Your task to perform on an android device: Is it going to rain tomorrow? Image 0: 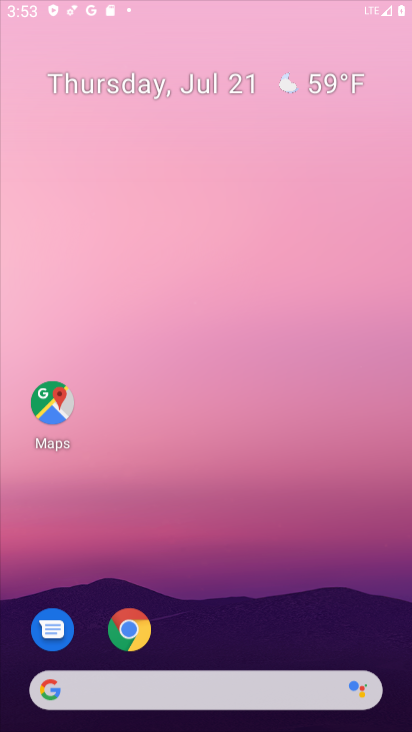
Step 0: press back button
Your task to perform on an android device: Is it going to rain tomorrow? Image 1: 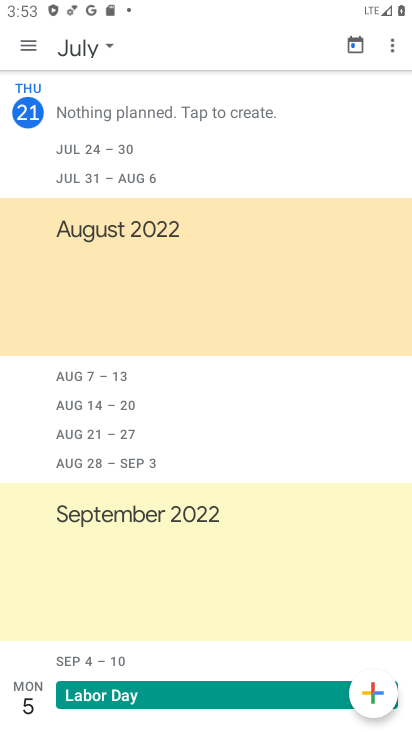
Step 1: drag from (178, 484) to (117, 76)
Your task to perform on an android device: Is it going to rain tomorrow? Image 2: 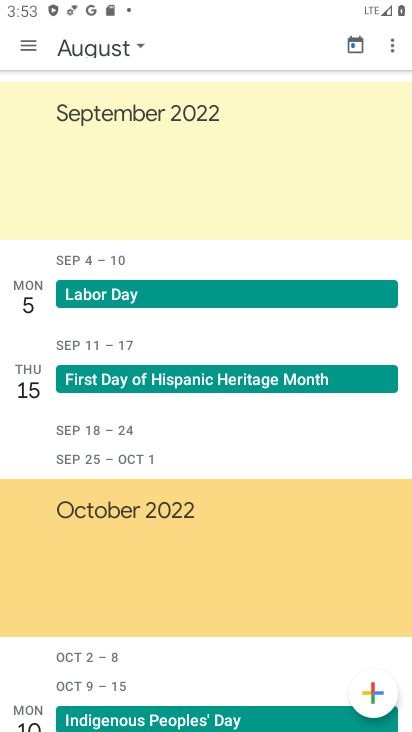
Step 2: press back button
Your task to perform on an android device: Is it going to rain tomorrow? Image 3: 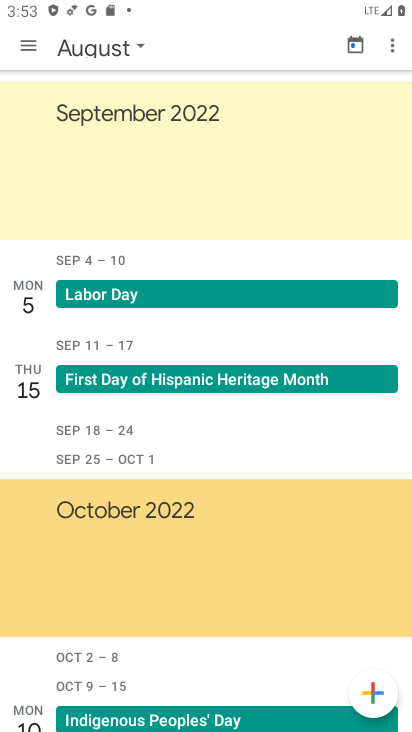
Step 3: press back button
Your task to perform on an android device: Is it going to rain tomorrow? Image 4: 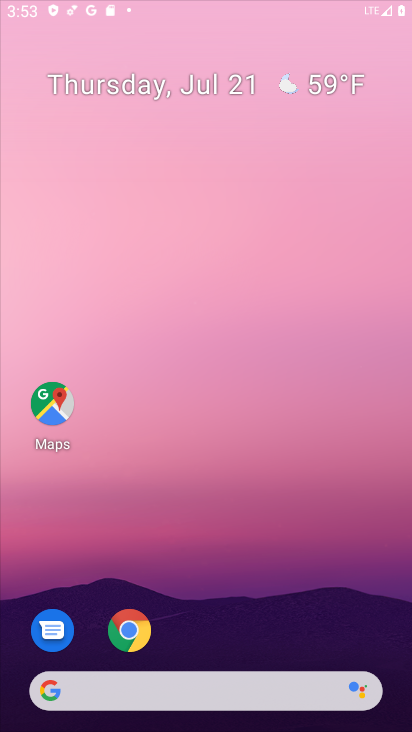
Step 4: press back button
Your task to perform on an android device: Is it going to rain tomorrow? Image 5: 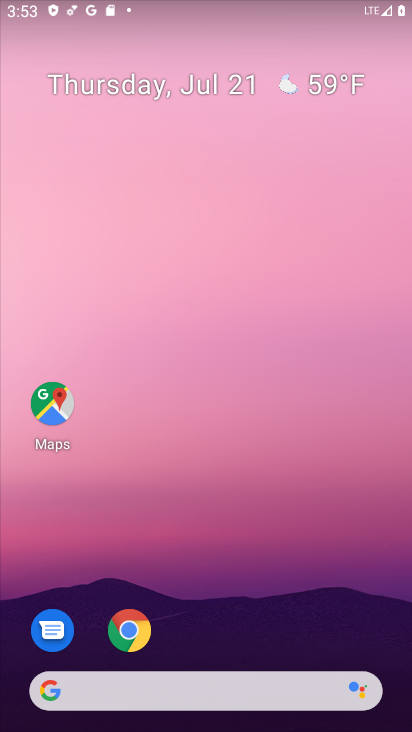
Step 5: drag from (17, 189) to (334, 311)
Your task to perform on an android device: Is it going to rain tomorrow? Image 6: 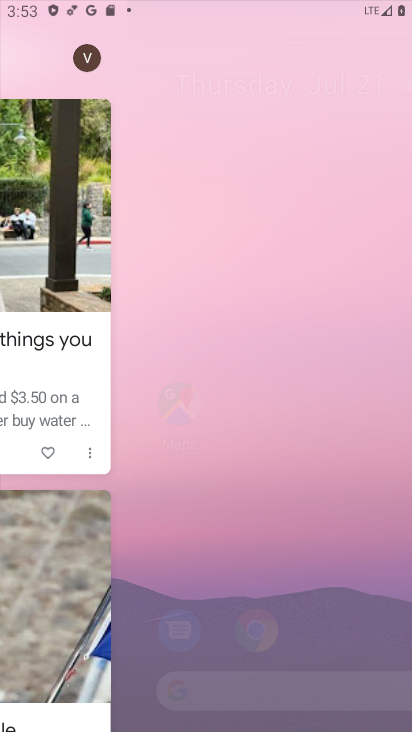
Step 6: drag from (290, 295) to (400, 297)
Your task to perform on an android device: Is it going to rain tomorrow? Image 7: 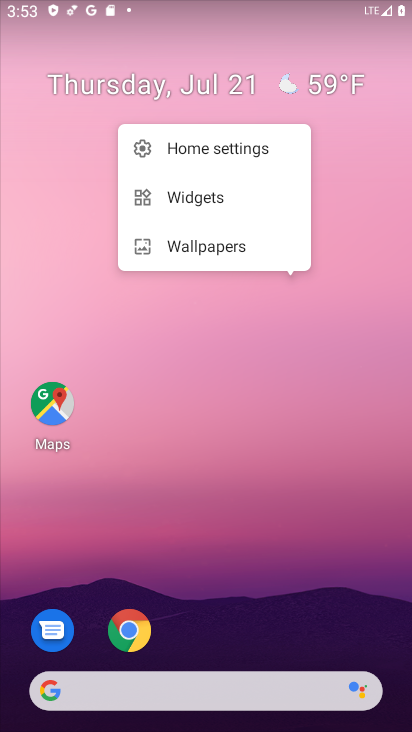
Step 7: drag from (111, 225) to (361, 337)
Your task to perform on an android device: Is it going to rain tomorrow? Image 8: 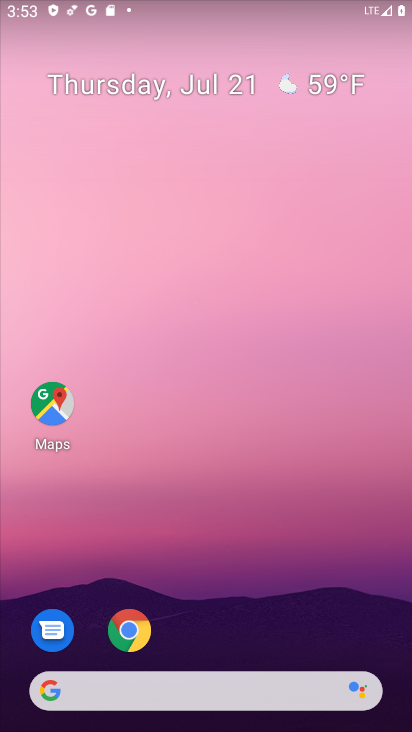
Step 8: drag from (166, 575) to (184, 38)
Your task to perform on an android device: Is it going to rain tomorrow? Image 9: 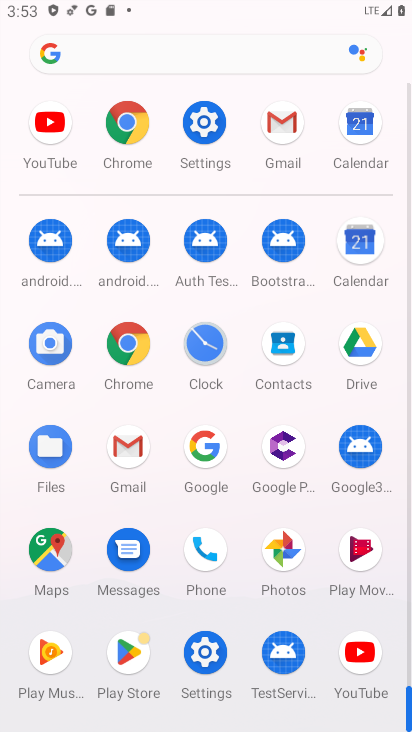
Step 9: click (127, 122)
Your task to perform on an android device: Is it going to rain tomorrow? Image 10: 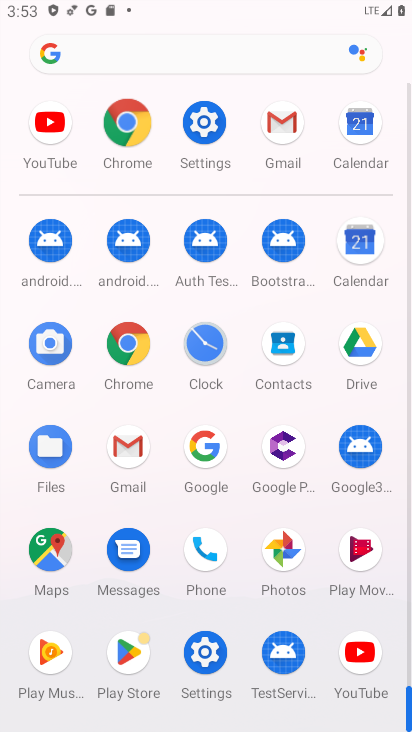
Step 10: click (132, 121)
Your task to perform on an android device: Is it going to rain tomorrow? Image 11: 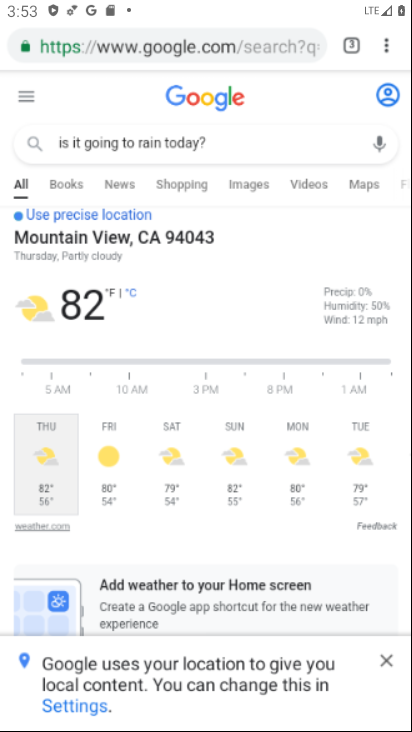
Step 11: click (134, 123)
Your task to perform on an android device: Is it going to rain tomorrow? Image 12: 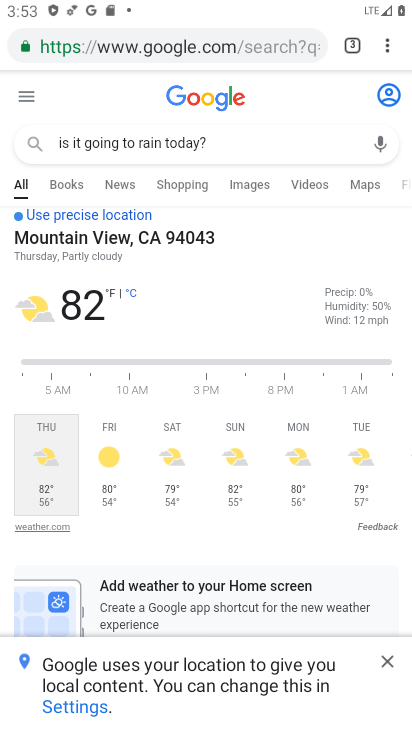
Step 12: click (226, 135)
Your task to perform on an android device: Is it going to rain tomorrow? Image 13: 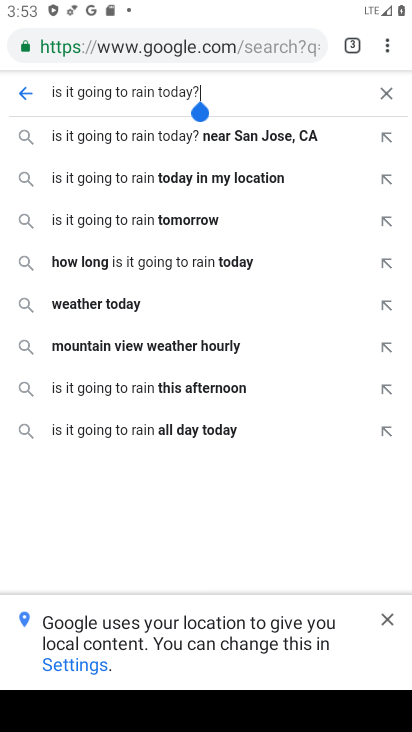
Step 13: drag from (247, 407) to (211, 0)
Your task to perform on an android device: Is it going to rain tomorrow? Image 14: 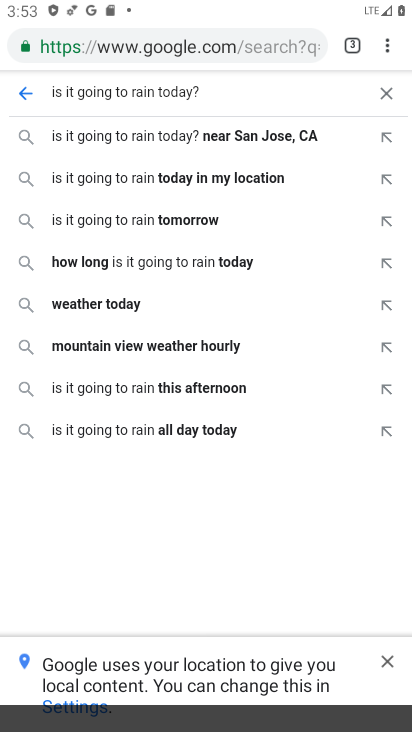
Step 14: drag from (215, 365) to (198, 150)
Your task to perform on an android device: Is it going to rain tomorrow? Image 15: 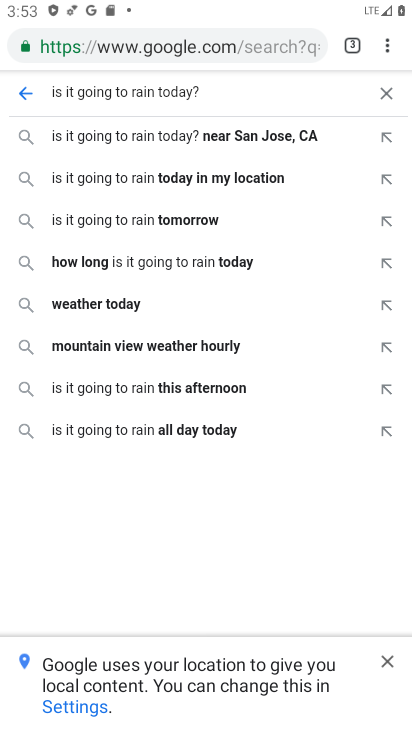
Step 15: drag from (200, 178) to (204, 579)
Your task to perform on an android device: Is it going to rain tomorrow? Image 16: 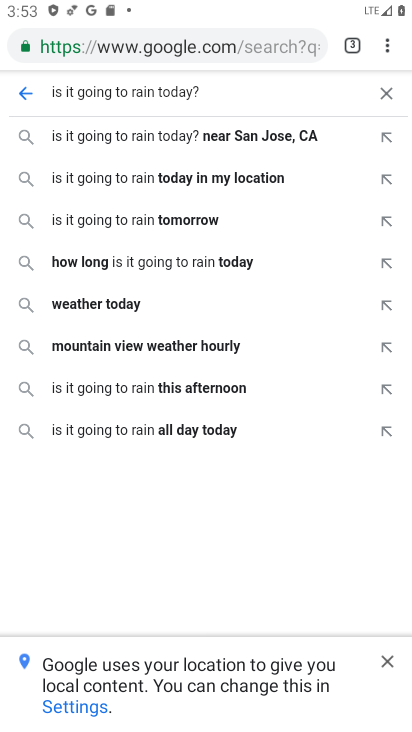
Step 16: drag from (185, 207) to (236, 480)
Your task to perform on an android device: Is it going to rain tomorrow? Image 17: 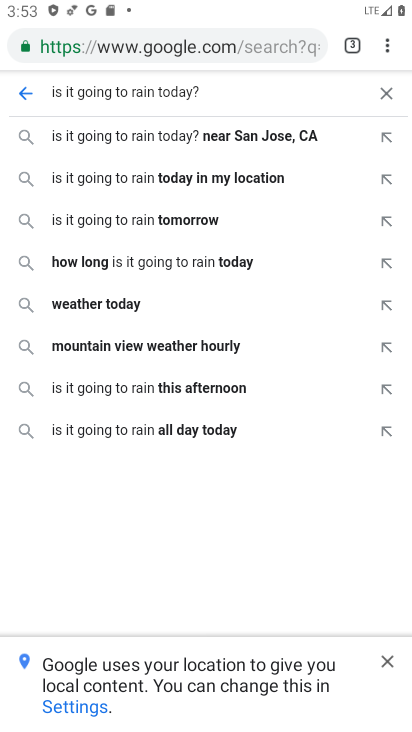
Step 17: drag from (213, 146) to (261, 433)
Your task to perform on an android device: Is it going to rain tomorrow? Image 18: 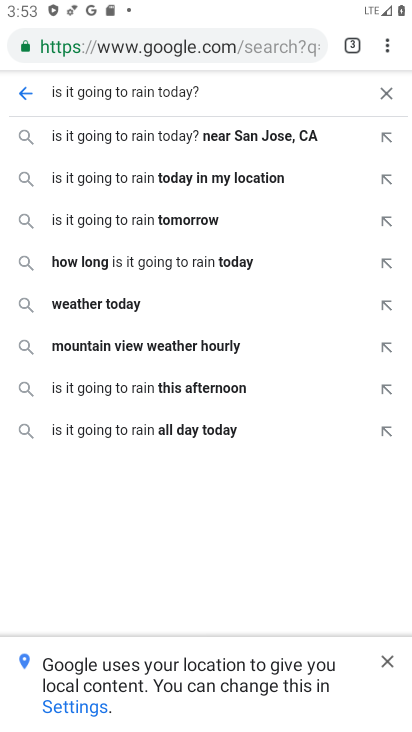
Step 18: drag from (217, 163) to (182, 460)
Your task to perform on an android device: Is it going to rain tomorrow? Image 19: 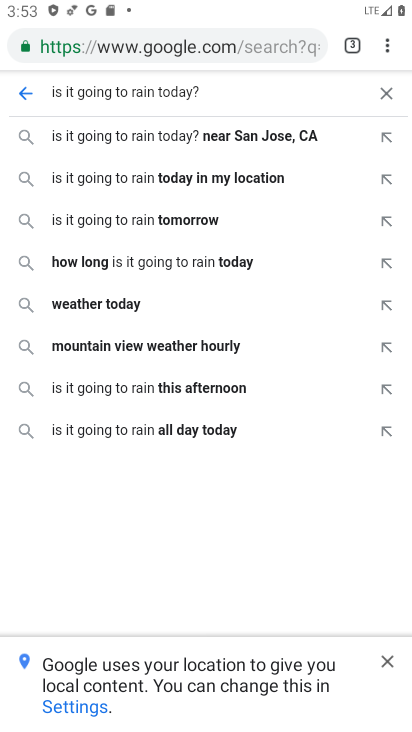
Step 19: click (152, 94)
Your task to perform on an android device: Is it going to rain tomorrow? Image 20: 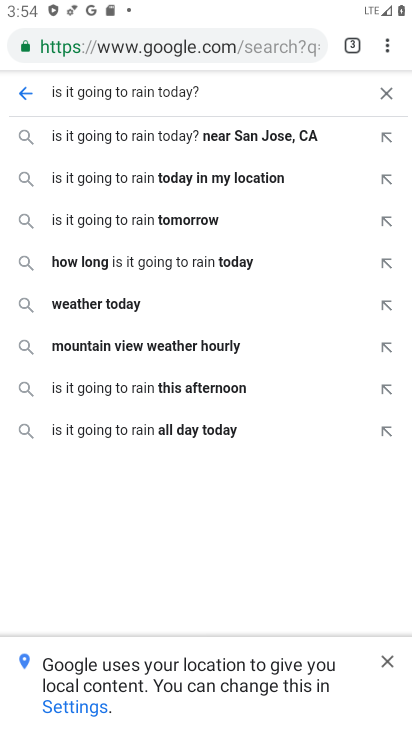
Step 20: click (149, 90)
Your task to perform on an android device: Is it going to rain tomorrow? Image 21: 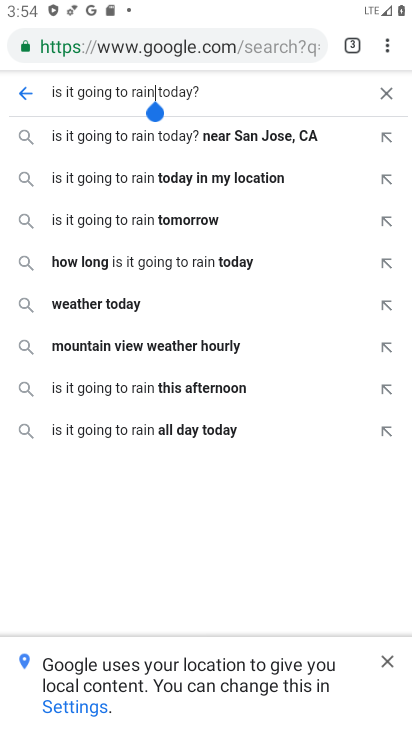
Step 21: click (149, 90)
Your task to perform on an android device: Is it going to rain tomorrow? Image 22: 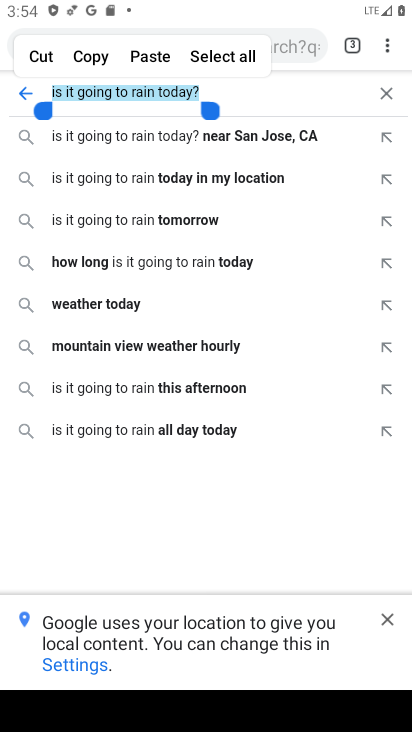
Step 22: task complete